Your task to perform on an android device: turn on showing notifications on the lock screen Image 0: 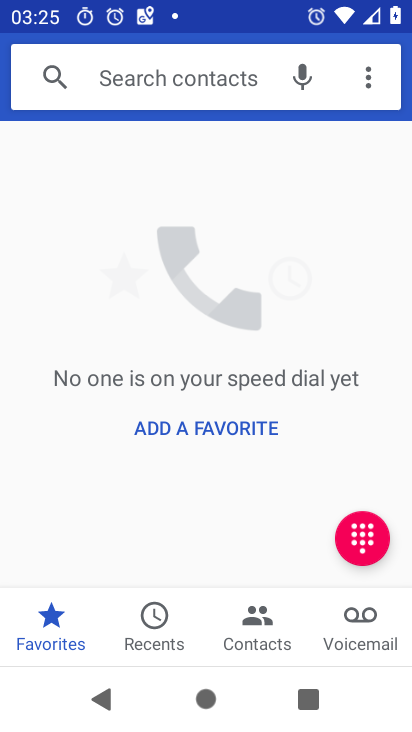
Step 0: press home button
Your task to perform on an android device: turn on showing notifications on the lock screen Image 1: 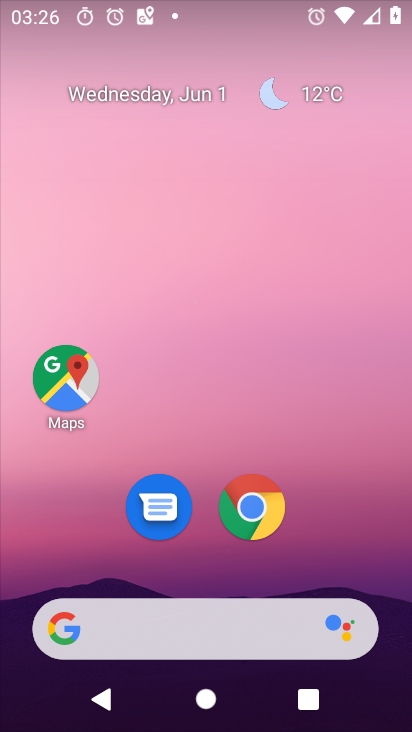
Step 1: drag from (348, 577) to (346, 23)
Your task to perform on an android device: turn on showing notifications on the lock screen Image 2: 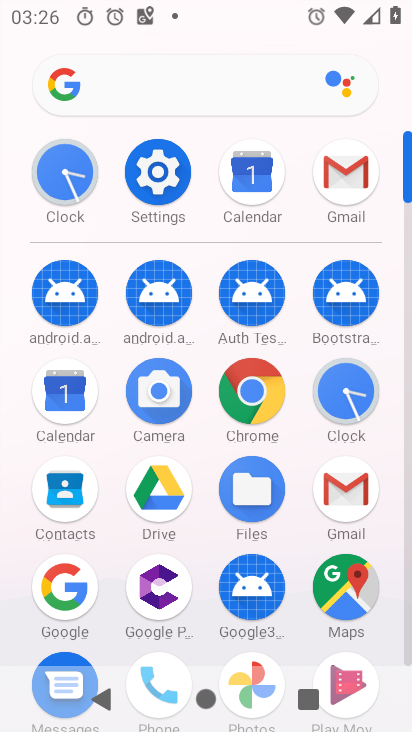
Step 2: click (152, 171)
Your task to perform on an android device: turn on showing notifications on the lock screen Image 3: 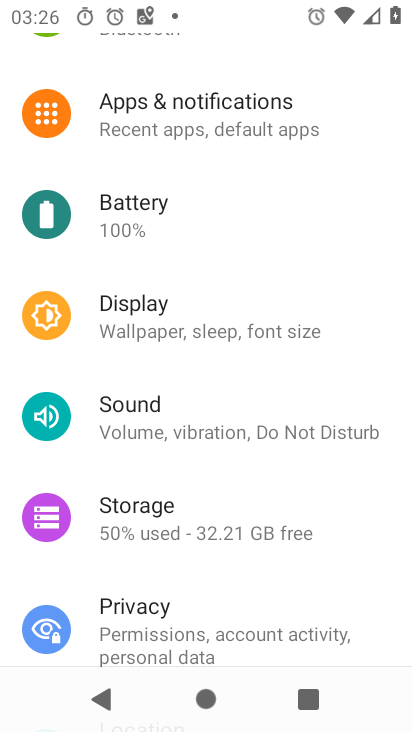
Step 3: click (222, 133)
Your task to perform on an android device: turn on showing notifications on the lock screen Image 4: 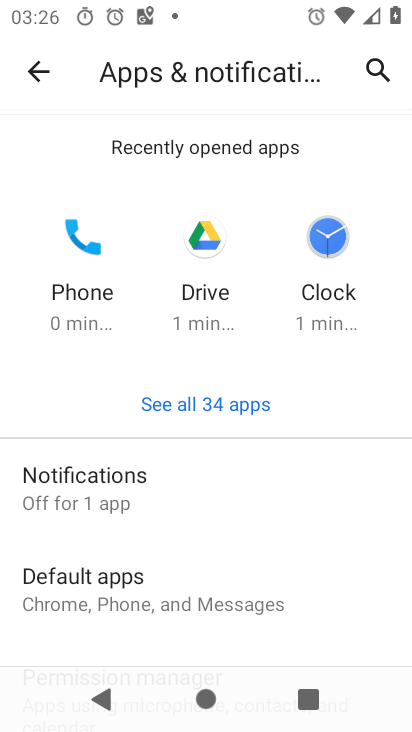
Step 4: click (83, 484)
Your task to perform on an android device: turn on showing notifications on the lock screen Image 5: 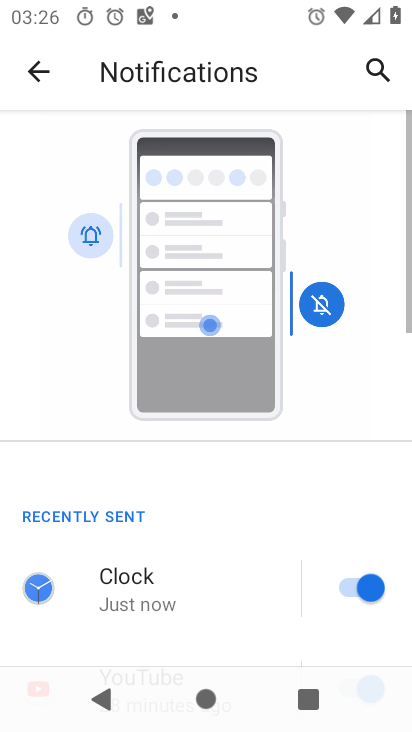
Step 5: drag from (159, 546) to (147, 218)
Your task to perform on an android device: turn on showing notifications on the lock screen Image 6: 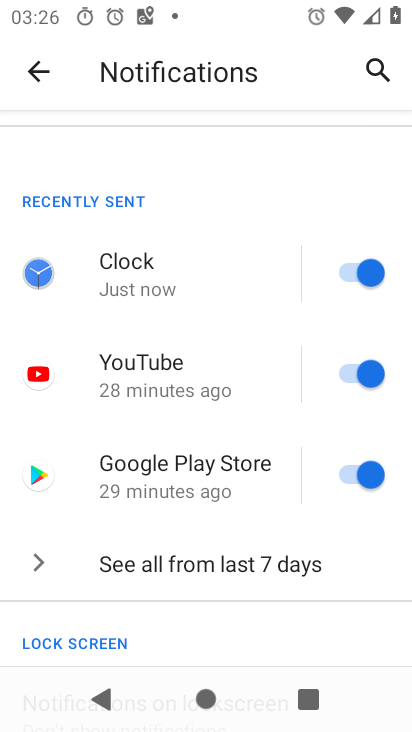
Step 6: drag from (144, 551) to (143, 248)
Your task to perform on an android device: turn on showing notifications on the lock screen Image 7: 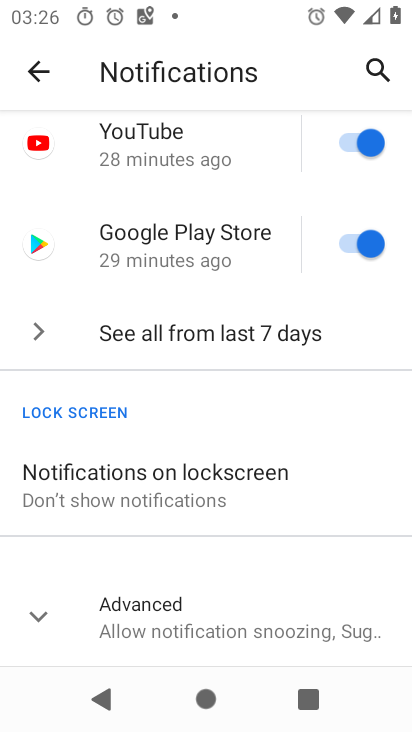
Step 7: click (142, 494)
Your task to perform on an android device: turn on showing notifications on the lock screen Image 8: 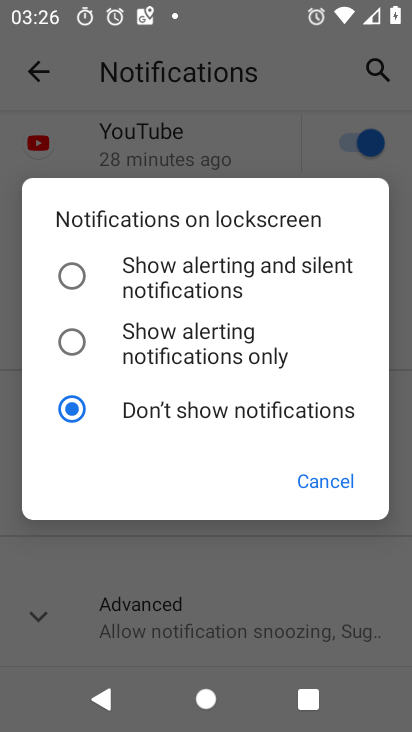
Step 8: click (68, 274)
Your task to perform on an android device: turn on showing notifications on the lock screen Image 9: 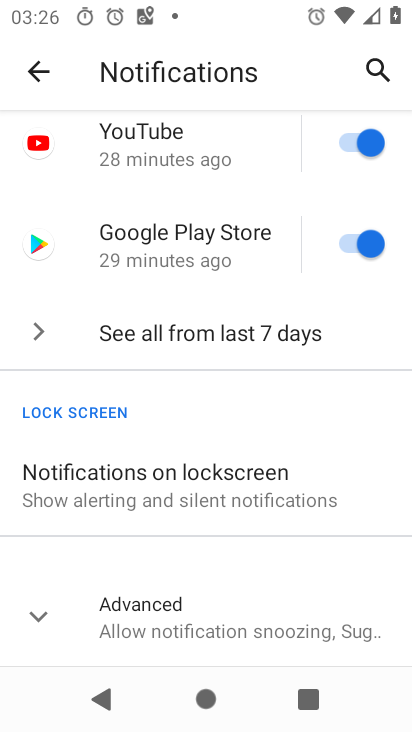
Step 9: task complete